Your task to perform on an android device: stop showing notifications on the lock screen Image 0: 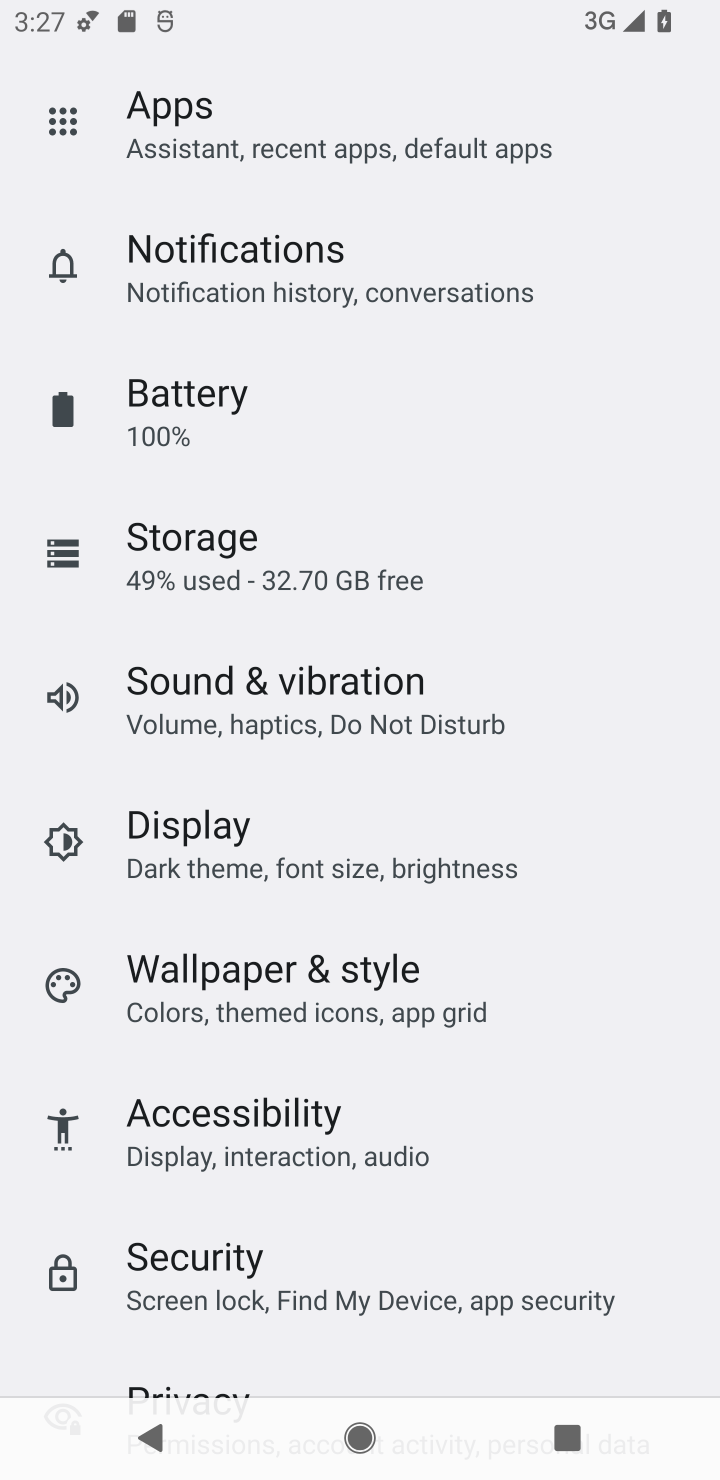
Step 0: click (493, 297)
Your task to perform on an android device: stop showing notifications on the lock screen Image 1: 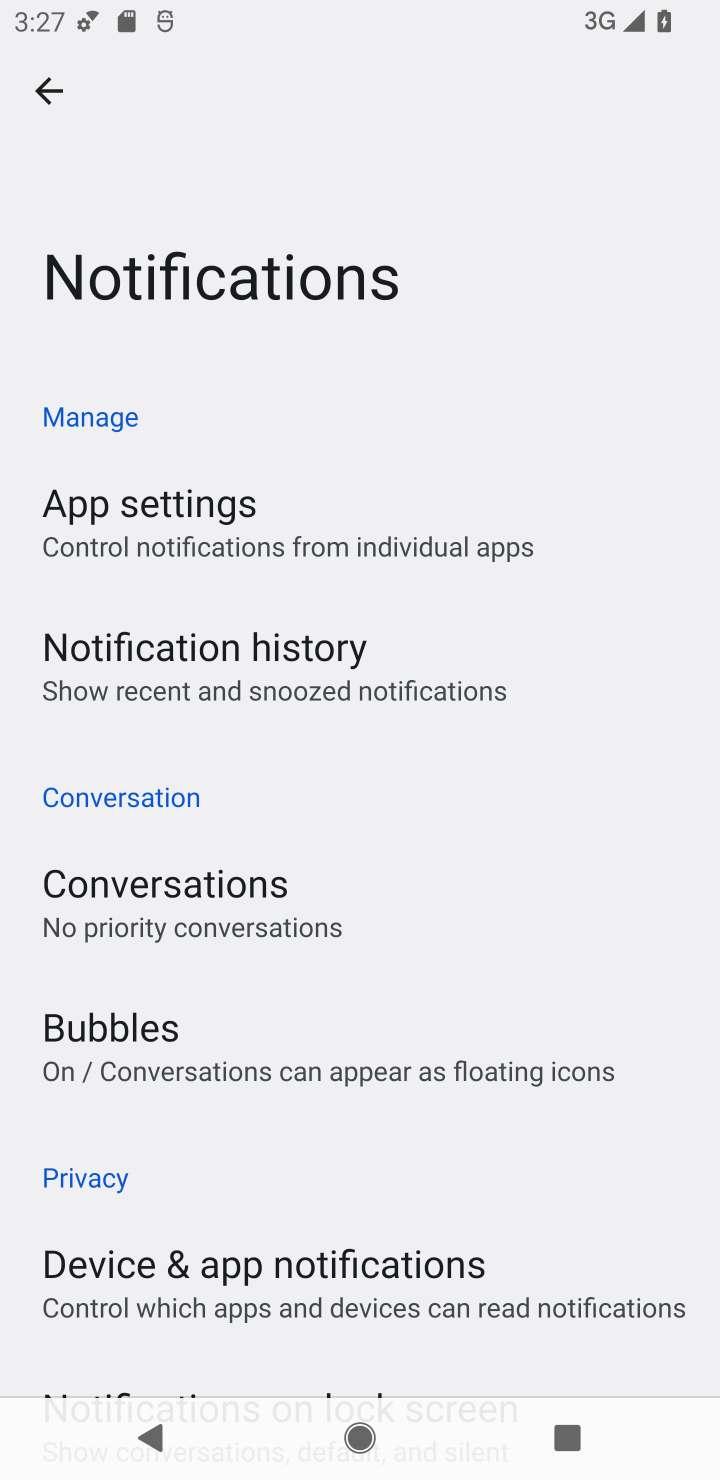
Step 1: drag from (429, 1170) to (458, 745)
Your task to perform on an android device: stop showing notifications on the lock screen Image 2: 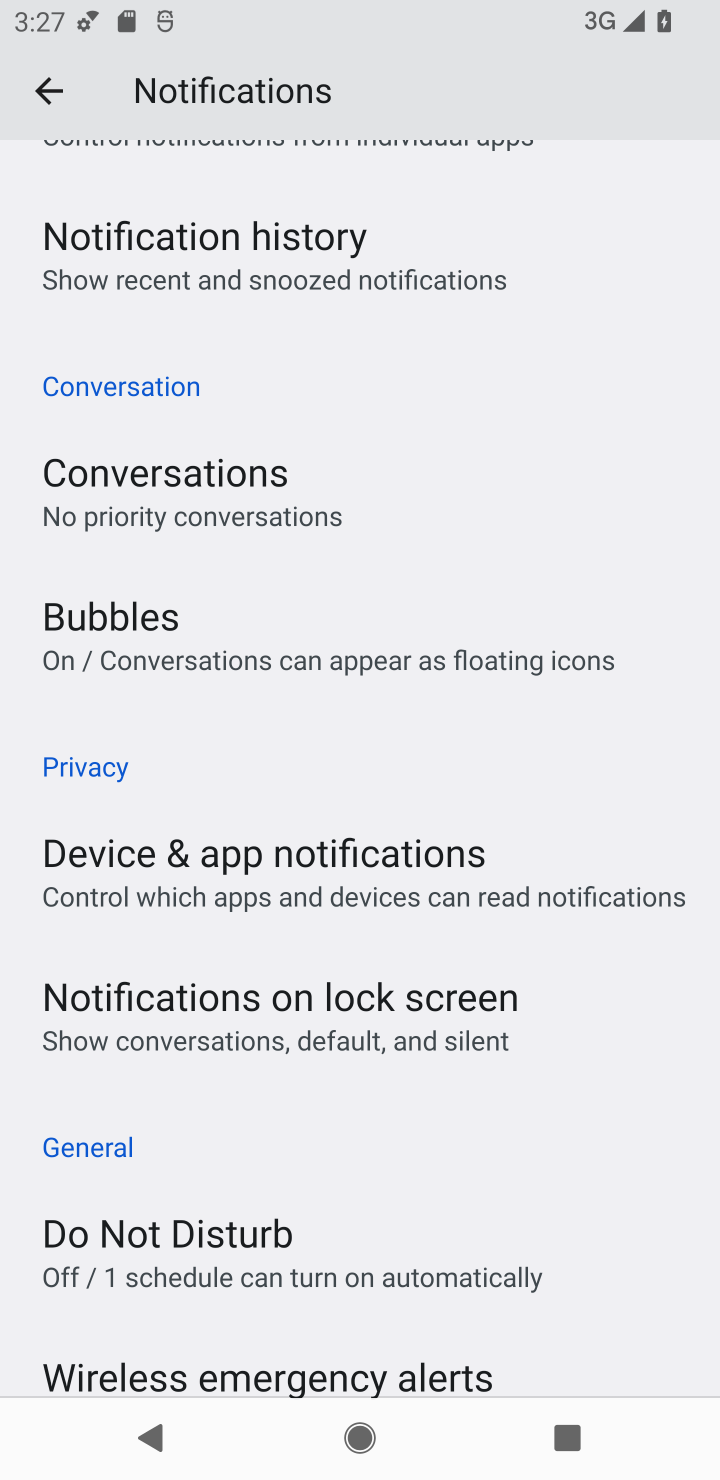
Step 2: click (371, 1002)
Your task to perform on an android device: stop showing notifications on the lock screen Image 3: 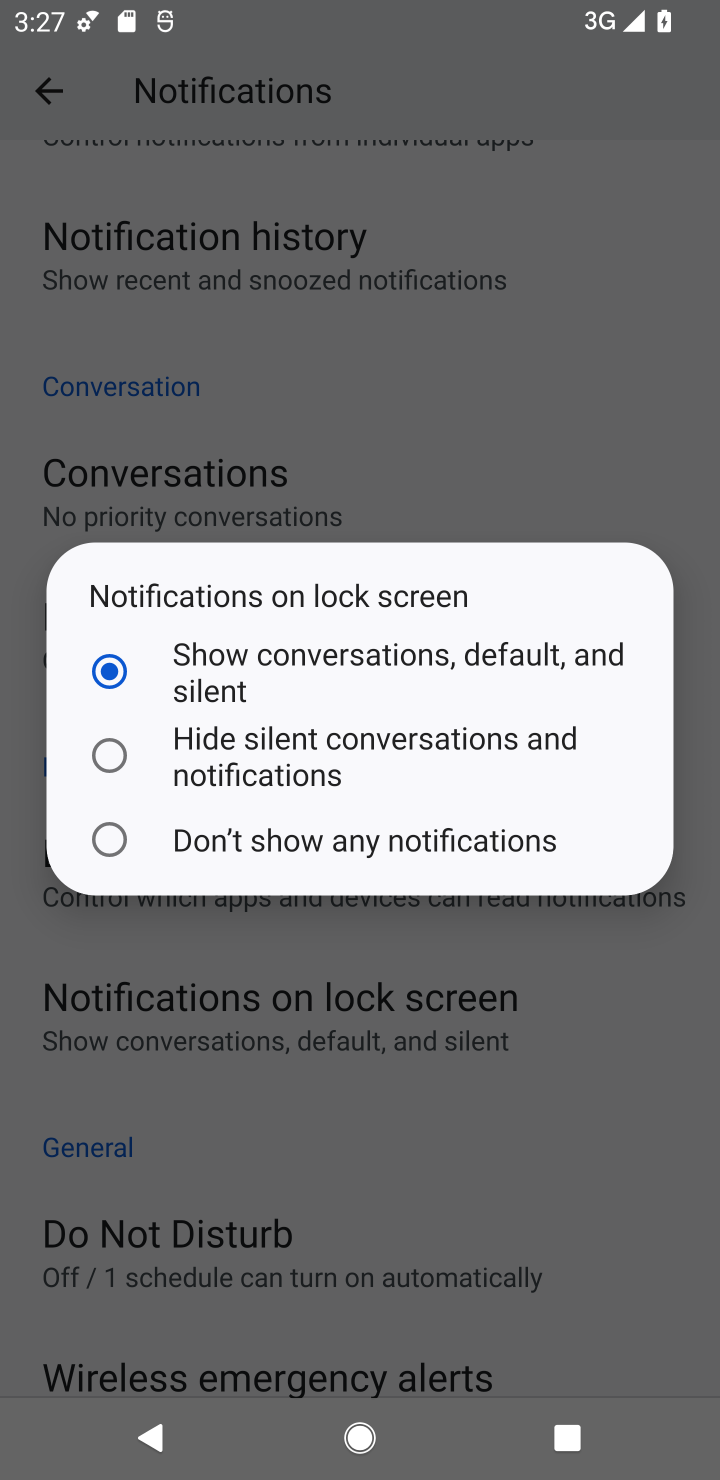
Step 3: click (102, 840)
Your task to perform on an android device: stop showing notifications on the lock screen Image 4: 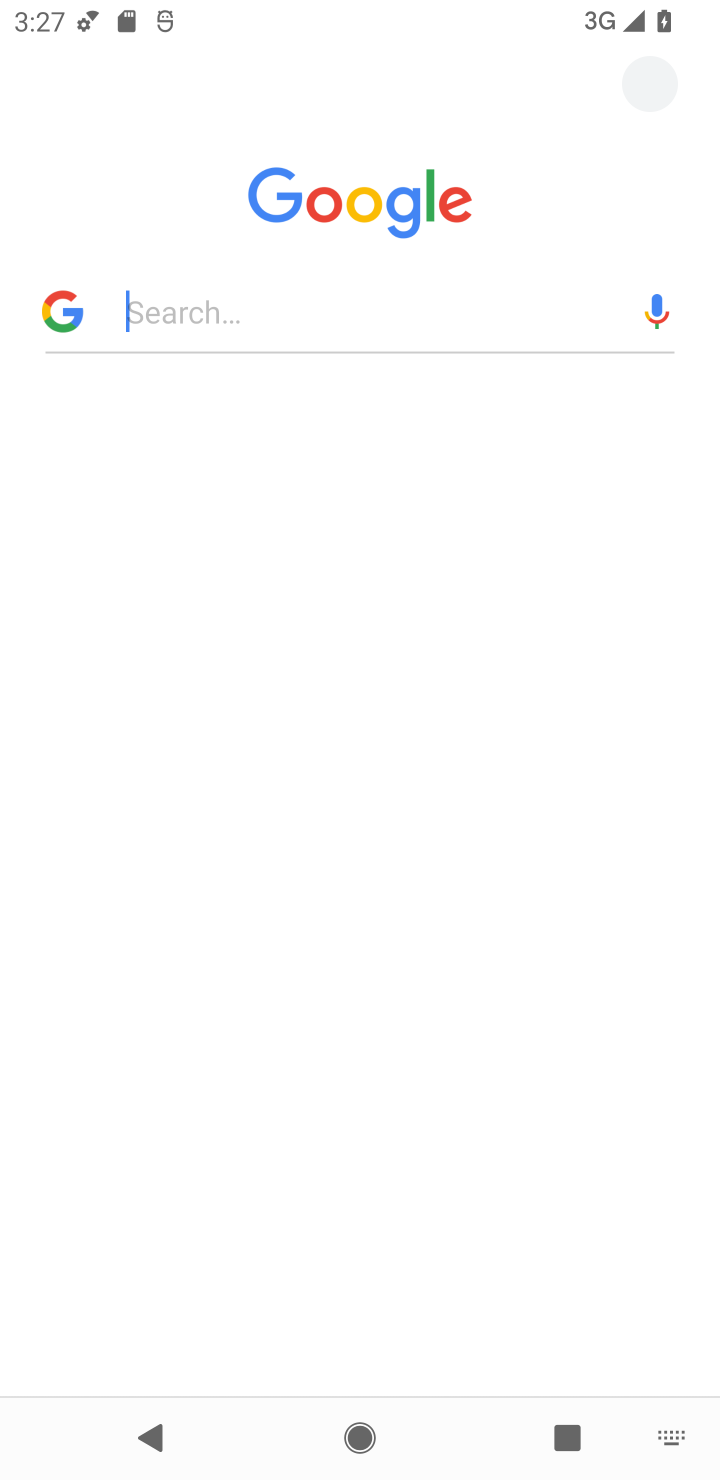
Step 4: task complete